Your task to perform on an android device: set the stopwatch Image 0: 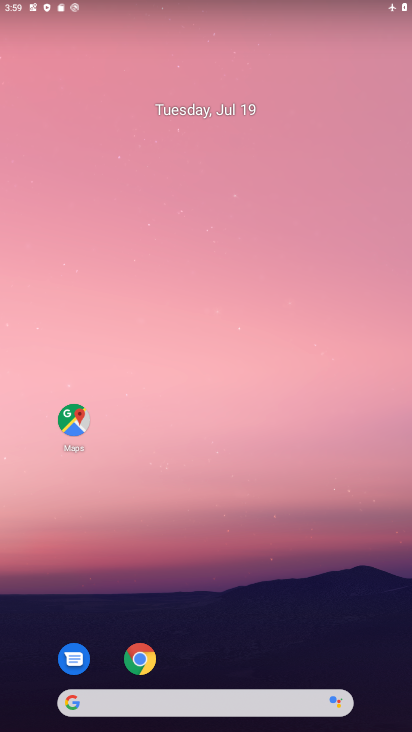
Step 0: drag from (304, 558) to (10, 471)
Your task to perform on an android device: set the stopwatch Image 1: 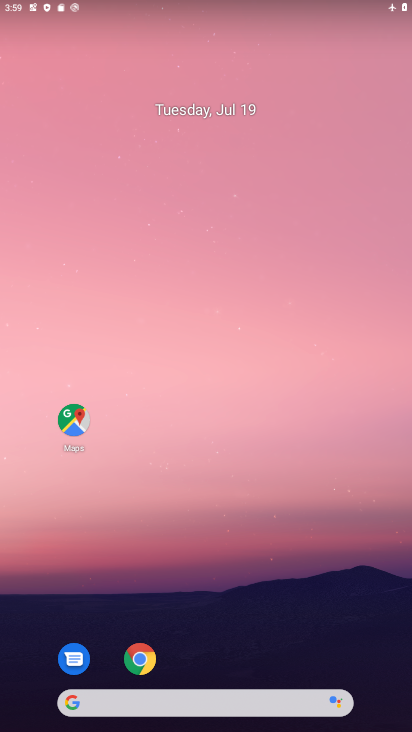
Step 1: drag from (279, 583) to (354, 79)
Your task to perform on an android device: set the stopwatch Image 2: 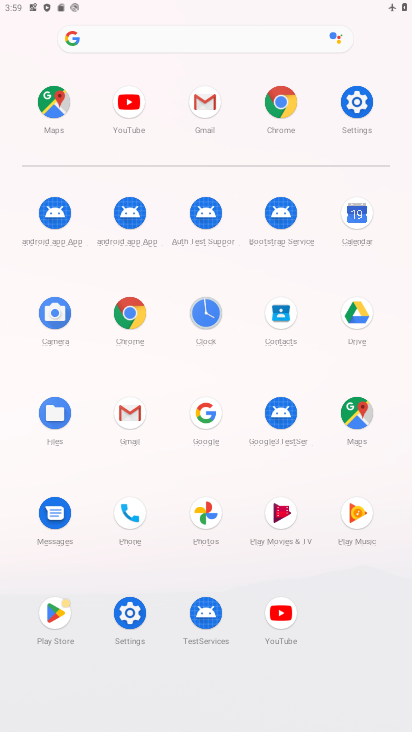
Step 2: click (211, 313)
Your task to perform on an android device: set the stopwatch Image 3: 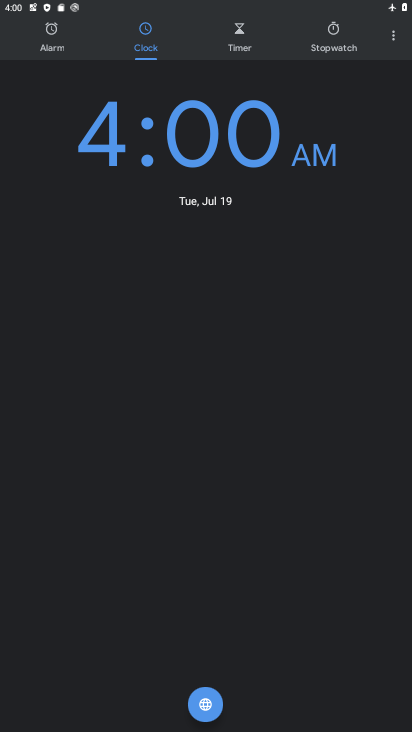
Step 3: click (337, 36)
Your task to perform on an android device: set the stopwatch Image 4: 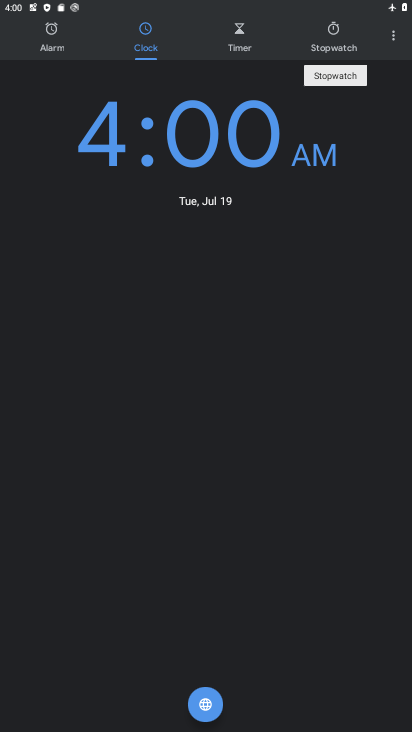
Step 4: click (337, 36)
Your task to perform on an android device: set the stopwatch Image 5: 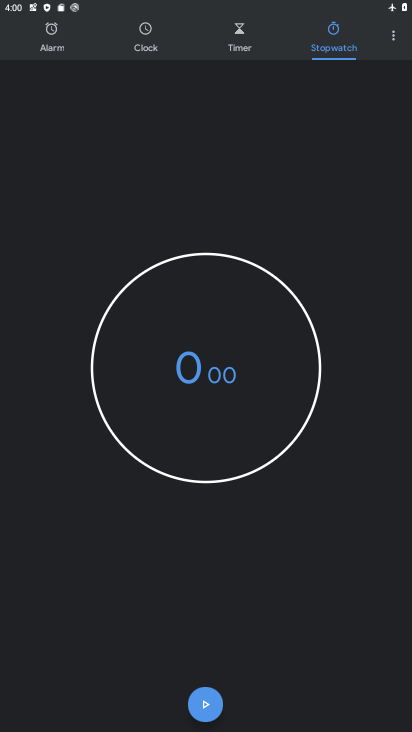
Step 5: click (201, 698)
Your task to perform on an android device: set the stopwatch Image 6: 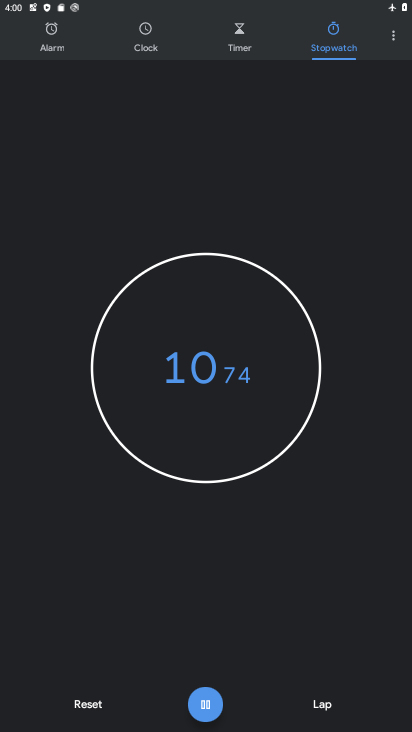
Step 6: task complete